Your task to perform on an android device: open app "HBO Max: Stream TV & Movies" (install if not already installed) and go to login screen Image 0: 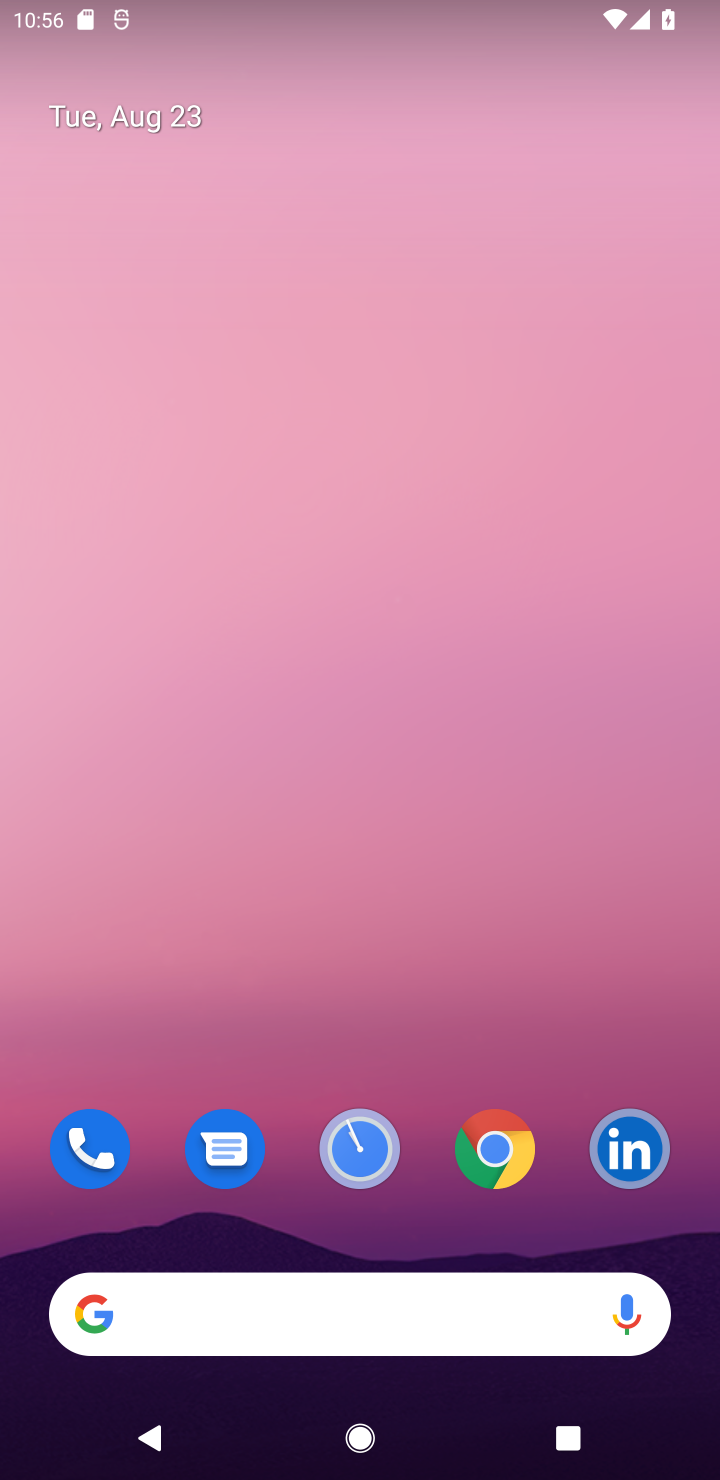
Step 0: drag from (428, 1232) to (419, 307)
Your task to perform on an android device: open app "HBO Max: Stream TV & Movies" (install if not already installed) and go to login screen Image 1: 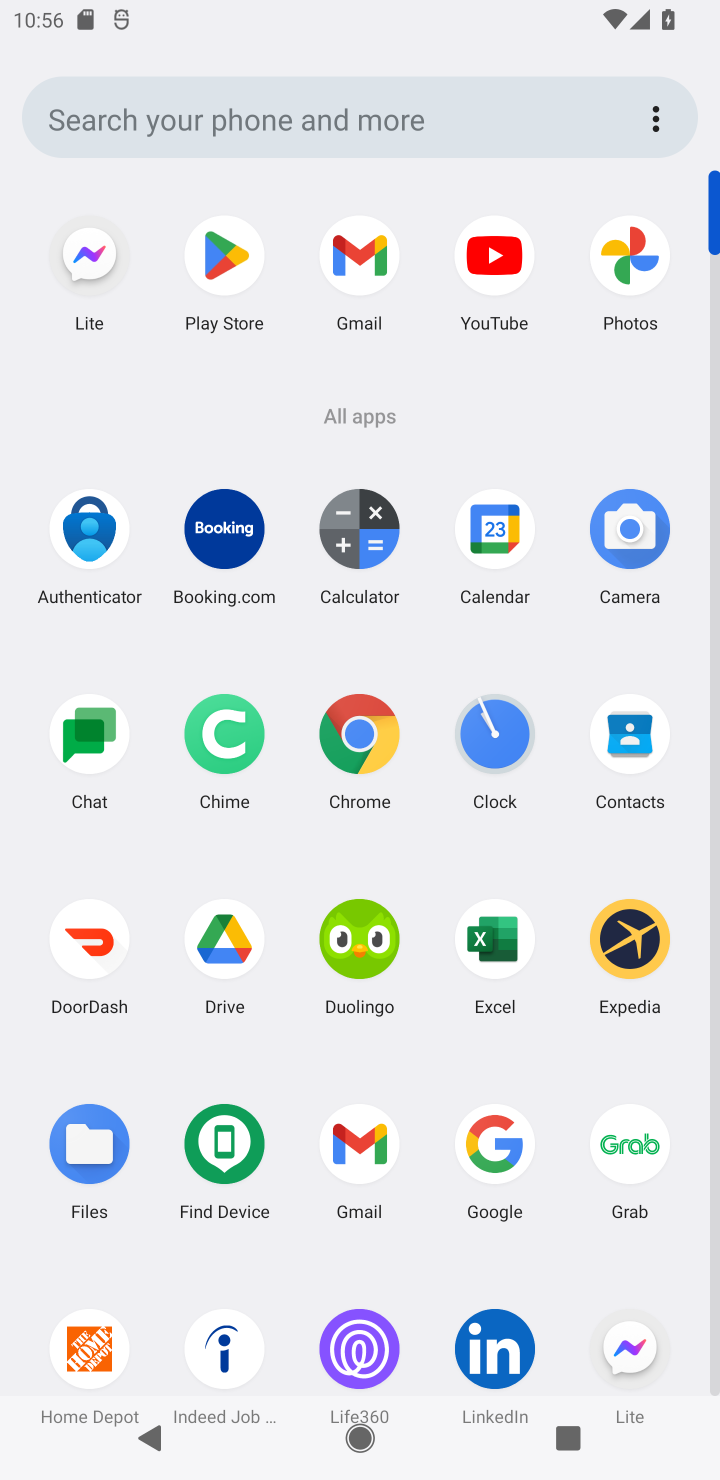
Step 1: click (232, 243)
Your task to perform on an android device: open app "HBO Max: Stream TV & Movies" (install if not already installed) and go to login screen Image 2: 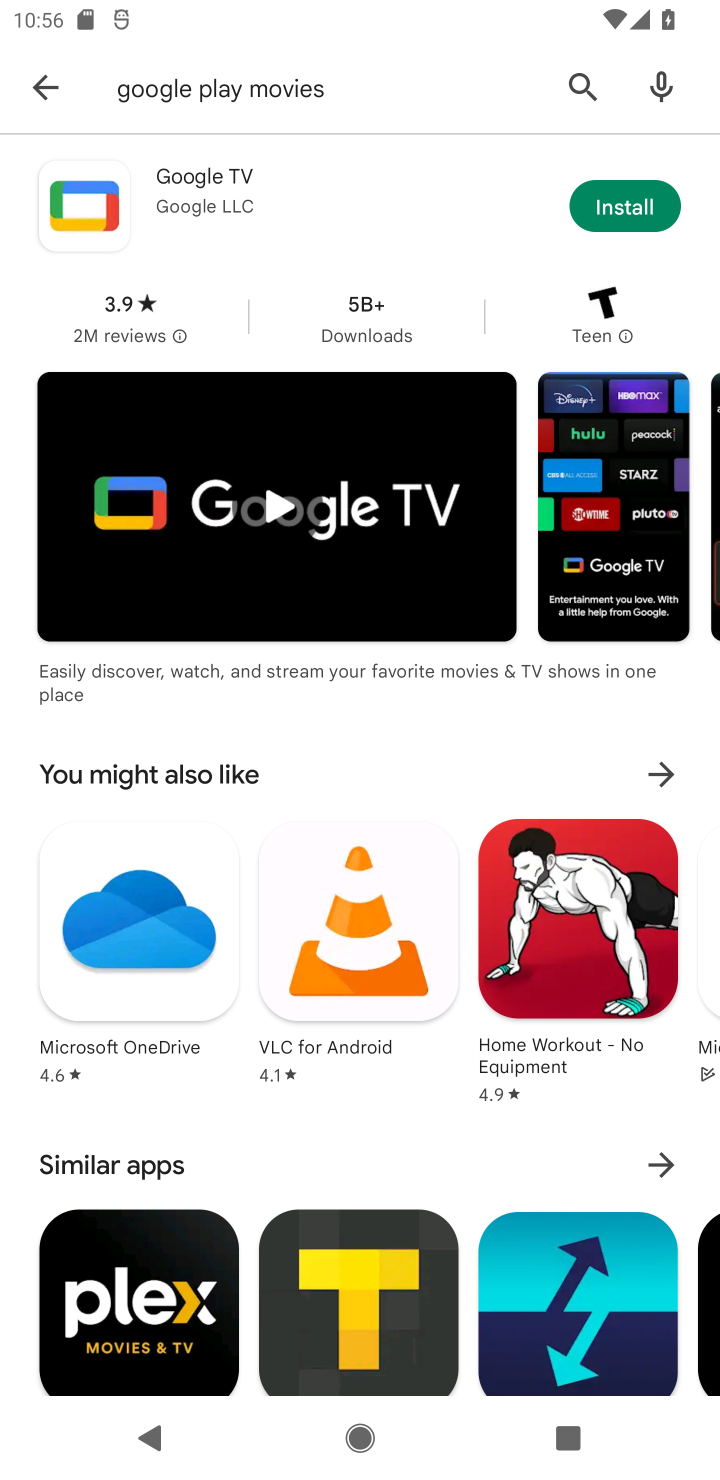
Step 2: click (556, 90)
Your task to perform on an android device: open app "HBO Max: Stream TV & Movies" (install if not already installed) and go to login screen Image 3: 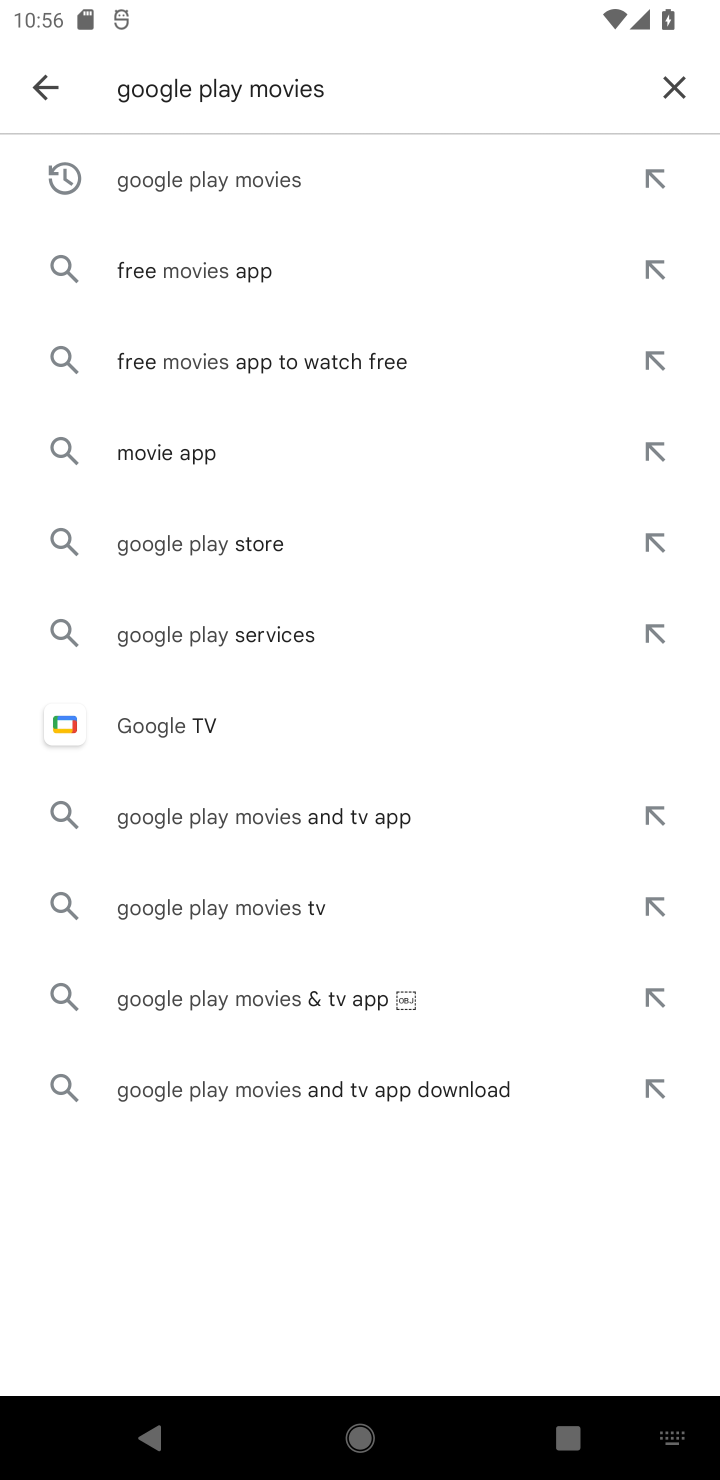
Step 3: click (665, 90)
Your task to perform on an android device: open app "HBO Max: Stream TV & Movies" (install if not already installed) and go to login screen Image 4: 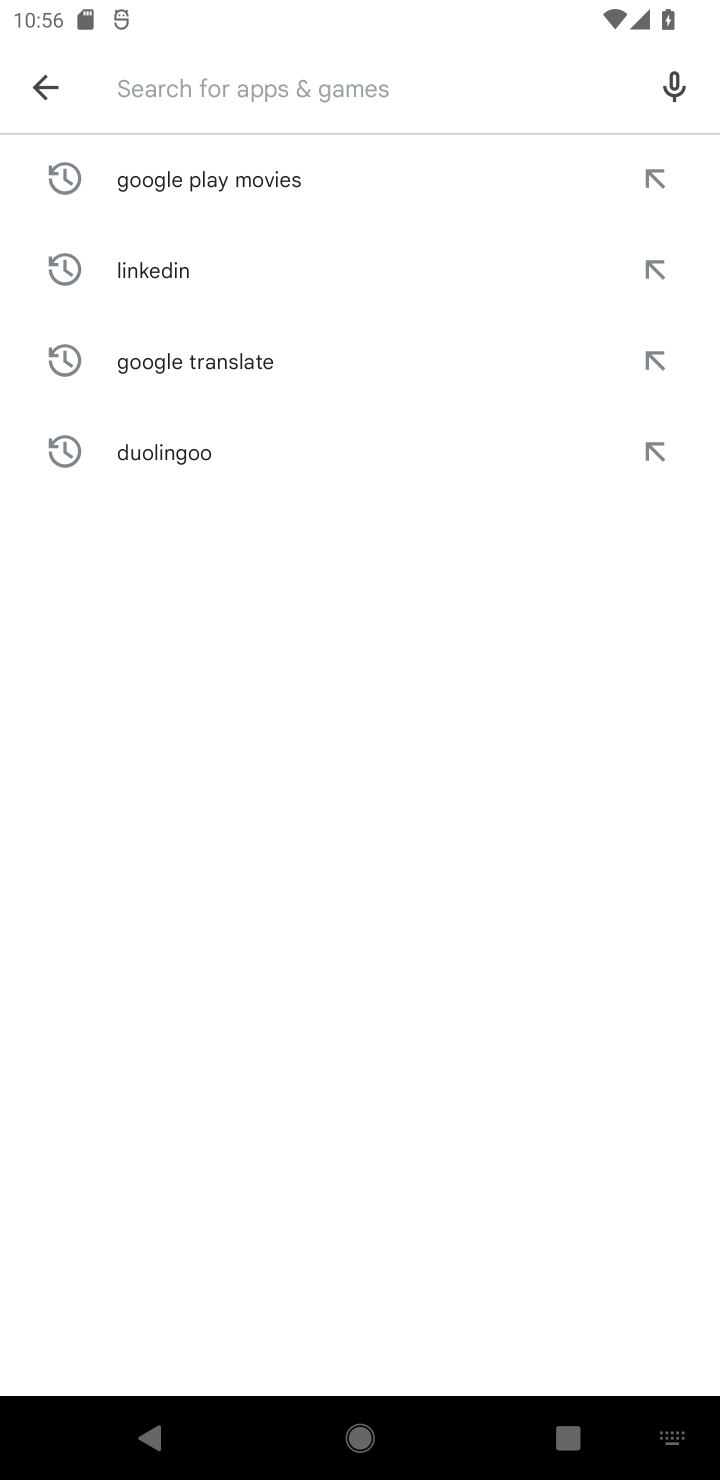
Step 4: type "hbo "
Your task to perform on an android device: open app "HBO Max: Stream TV & Movies" (install if not already installed) and go to login screen Image 5: 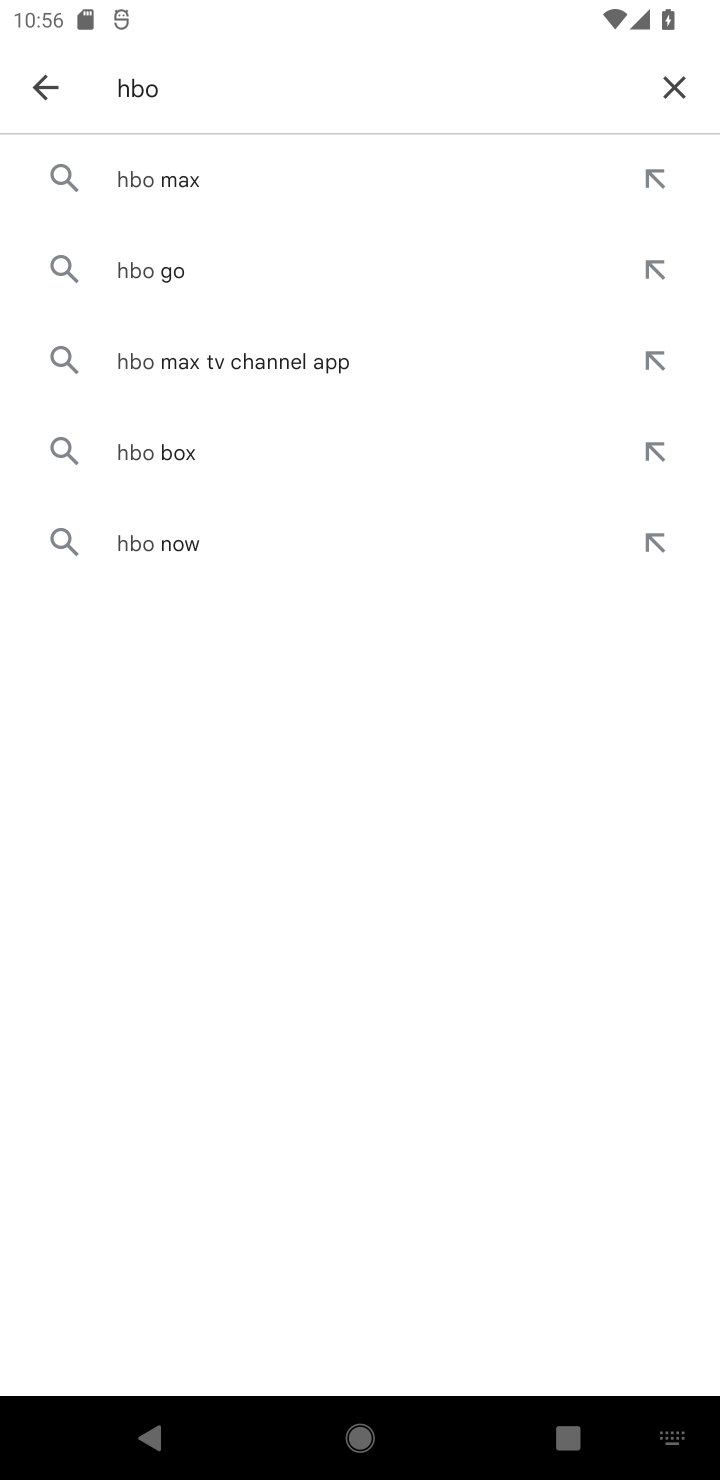
Step 5: click (222, 169)
Your task to perform on an android device: open app "HBO Max: Stream TV & Movies" (install if not already installed) and go to login screen Image 6: 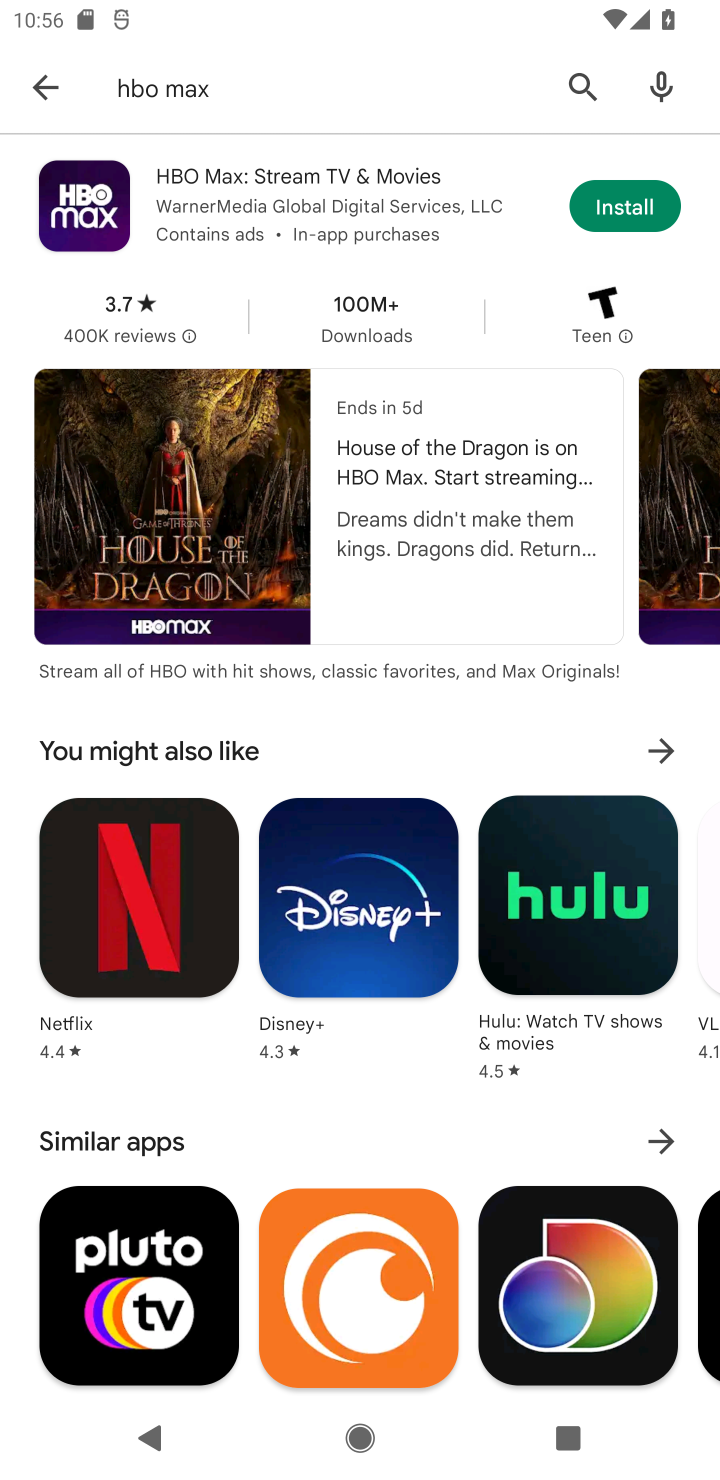
Step 6: click (615, 215)
Your task to perform on an android device: open app "HBO Max: Stream TV & Movies" (install if not already installed) and go to login screen Image 7: 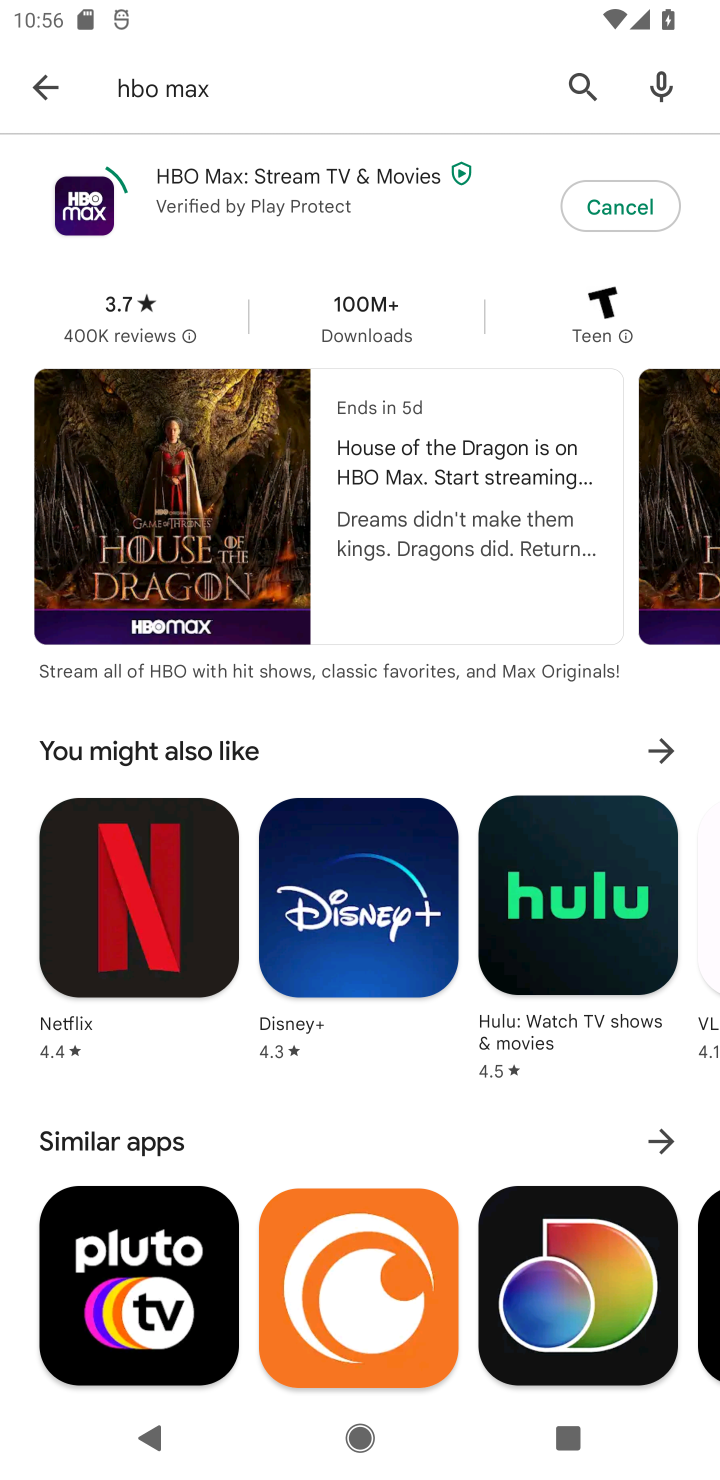
Step 7: task complete